Your task to perform on an android device: Open the map Image 0: 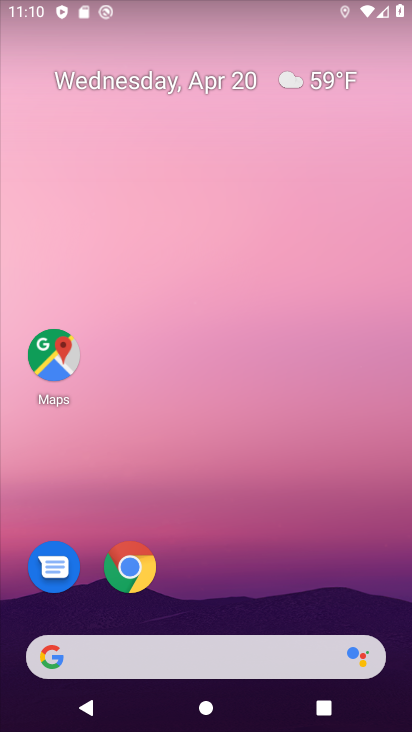
Step 0: drag from (285, 535) to (323, 44)
Your task to perform on an android device: Open the map Image 1: 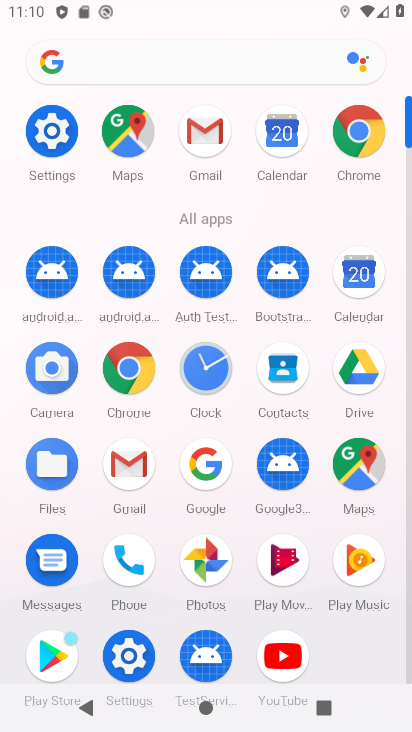
Step 1: click (133, 147)
Your task to perform on an android device: Open the map Image 2: 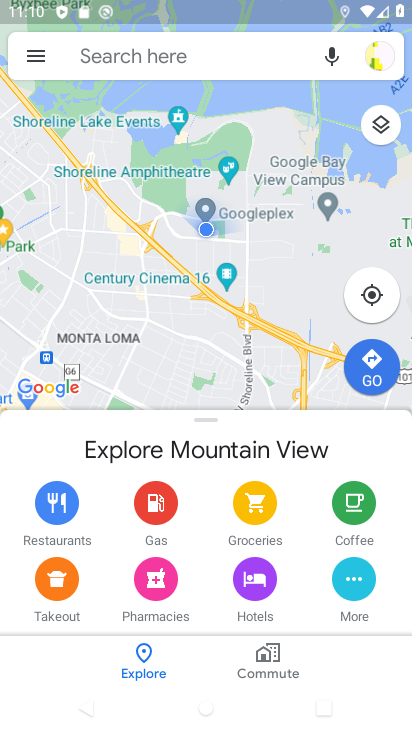
Step 2: task complete